Your task to perform on an android device: find which apps use the phone's location Image 0: 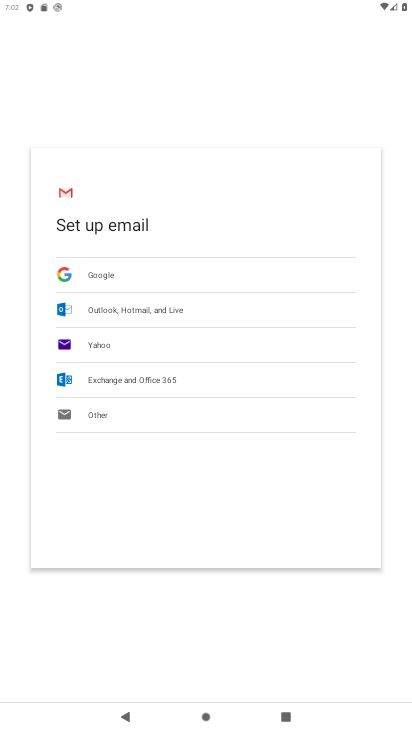
Step 0: press home button
Your task to perform on an android device: find which apps use the phone's location Image 1: 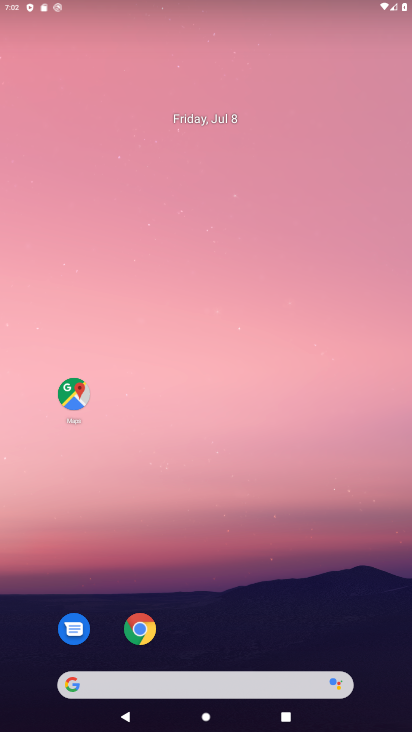
Step 1: drag from (261, 612) to (277, 5)
Your task to perform on an android device: find which apps use the phone's location Image 2: 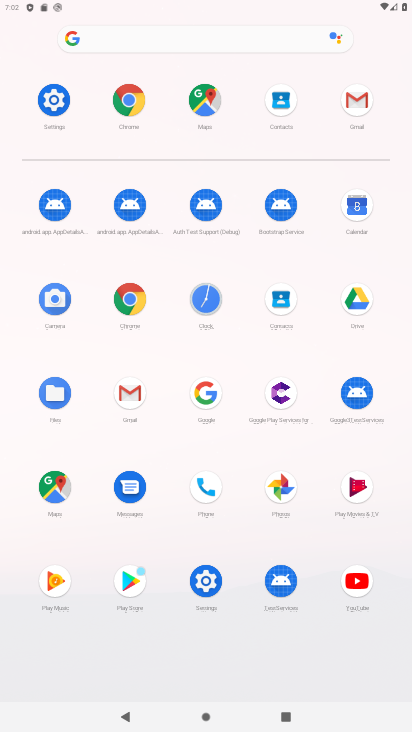
Step 2: click (204, 490)
Your task to perform on an android device: find which apps use the phone's location Image 3: 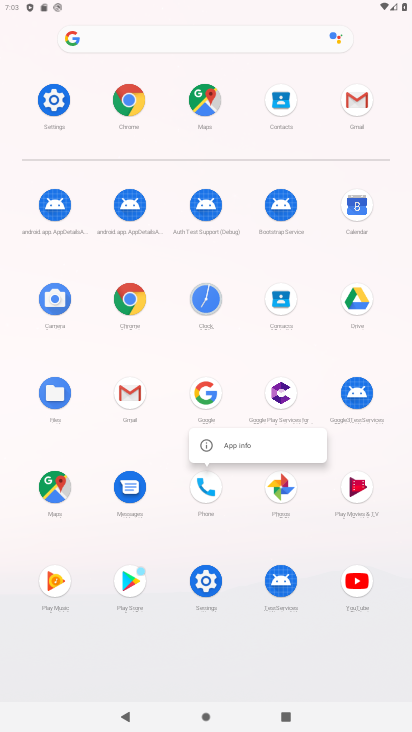
Step 3: click (215, 453)
Your task to perform on an android device: find which apps use the phone's location Image 4: 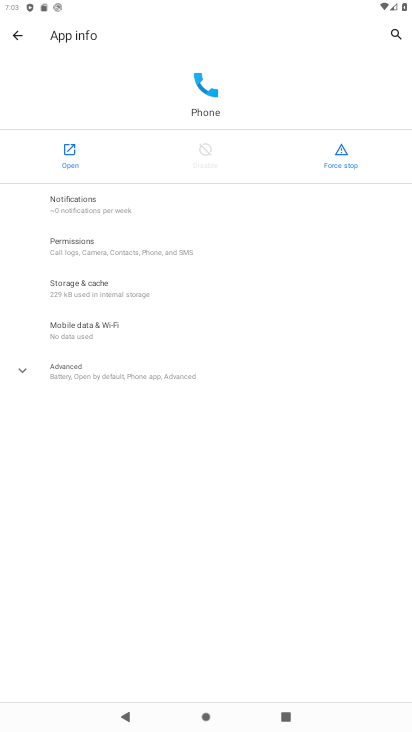
Step 4: click (92, 253)
Your task to perform on an android device: find which apps use the phone's location Image 5: 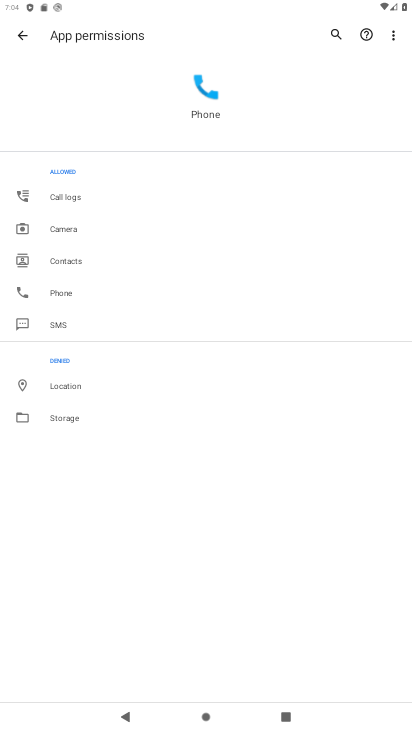
Step 5: click (57, 386)
Your task to perform on an android device: find which apps use the phone's location Image 6: 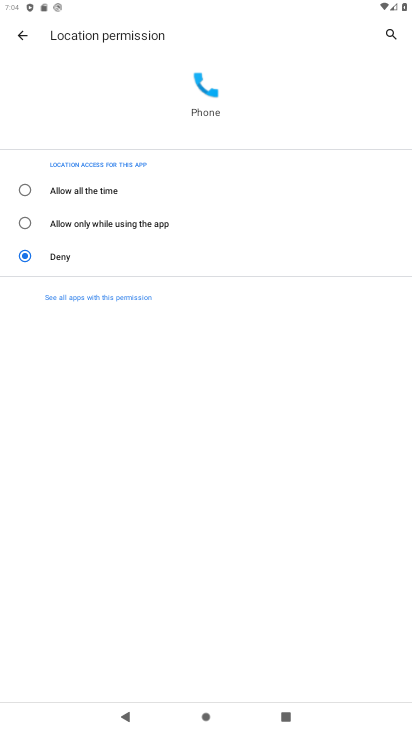
Step 6: click (73, 293)
Your task to perform on an android device: find which apps use the phone's location Image 7: 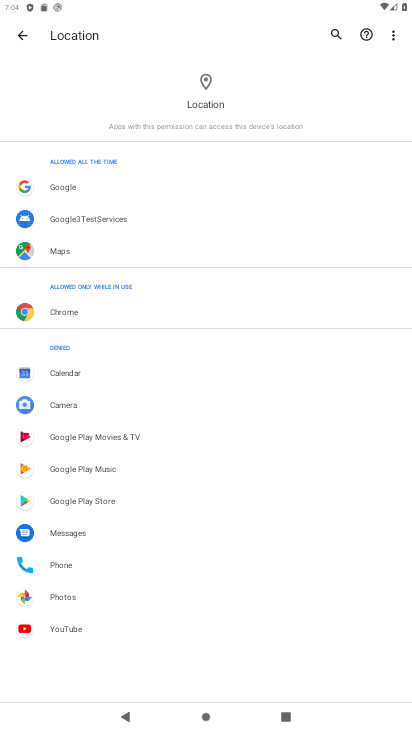
Step 7: task complete